Your task to perform on an android device: View the shopping cart on bestbuy.com. Add "usb-b" to the cart on bestbuy.com Image 0: 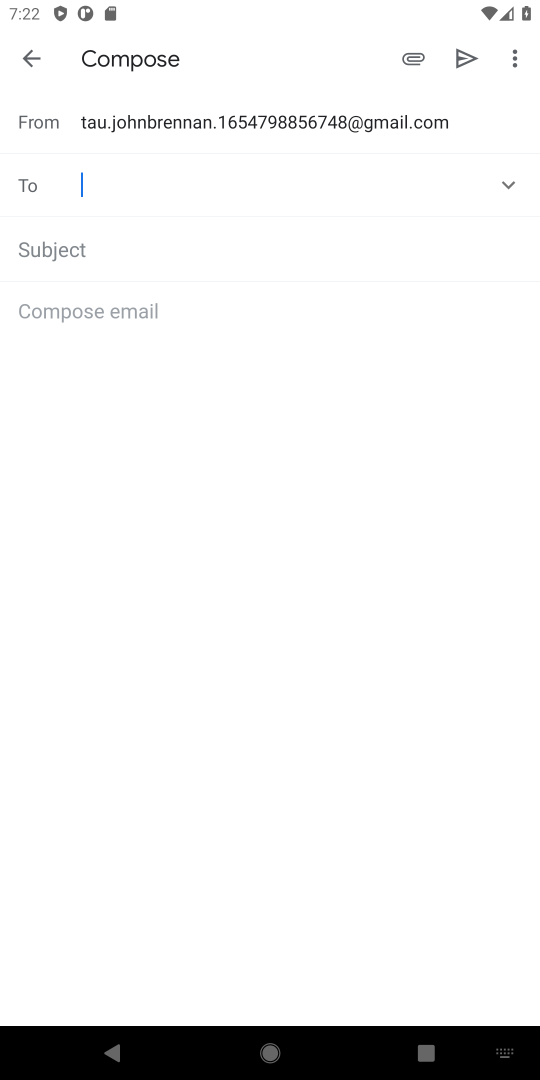
Step 0: press home button
Your task to perform on an android device: View the shopping cart on bestbuy.com. Add "usb-b" to the cart on bestbuy.com Image 1: 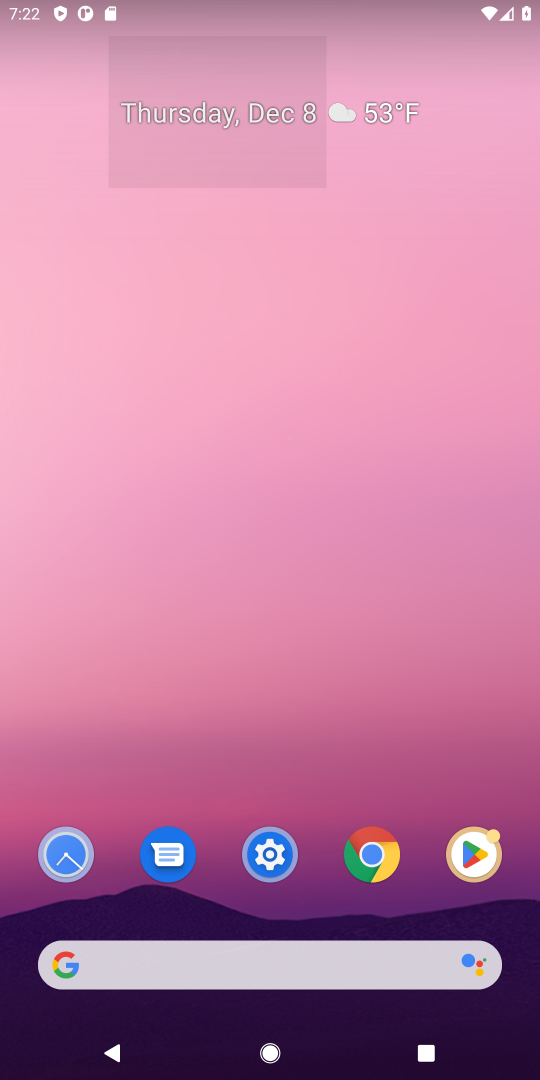
Step 1: click (90, 965)
Your task to perform on an android device: View the shopping cart on bestbuy.com. Add "usb-b" to the cart on bestbuy.com Image 2: 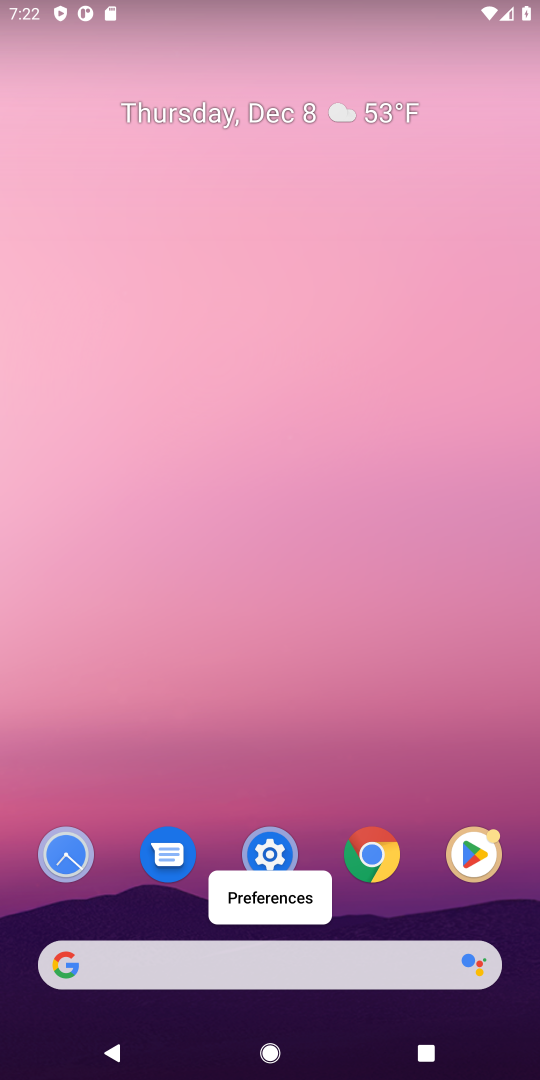
Step 2: click (89, 963)
Your task to perform on an android device: View the shopping cart on bestbuy.com. Add "usb-b" to the cart on bestbuy.com Image 3: 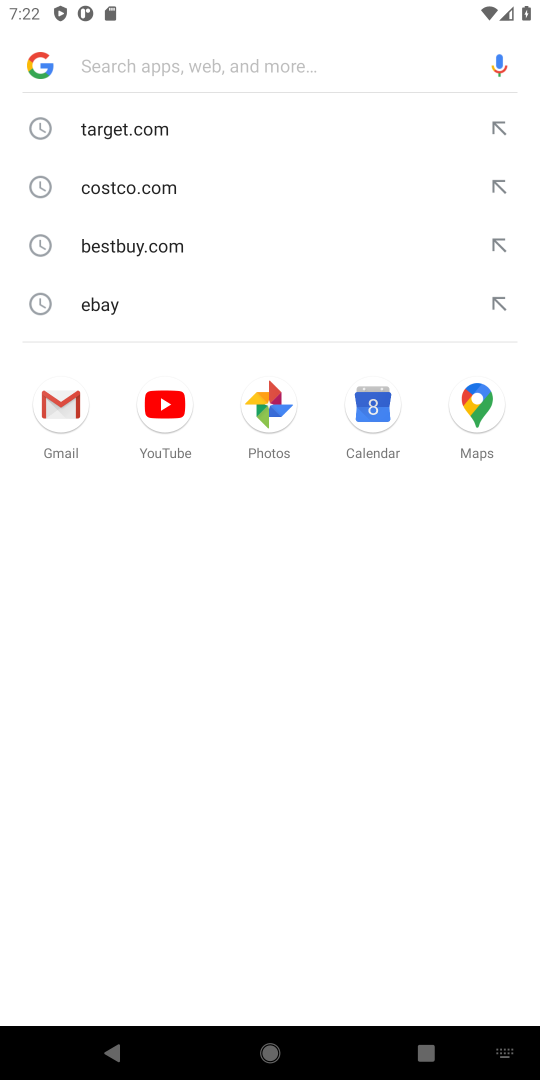
Step 3: type "bestbuy.com"
Your task to perform on an android device: View the shopping cart on bestbuy.com. Add "usb-b" to the cart on bestbuy.com Image 4: 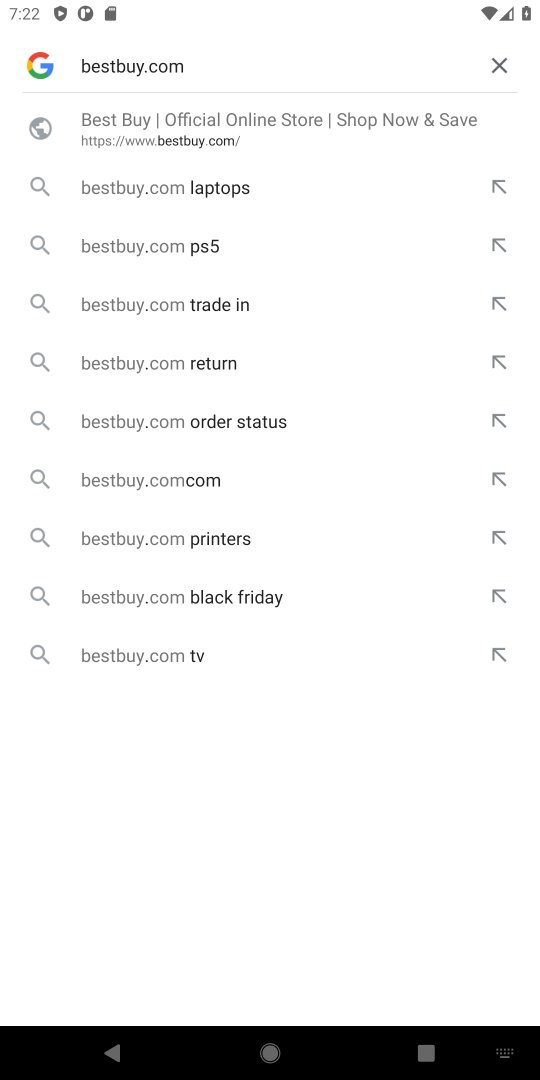
Step 4: press enter
Your task to perform on an android device: View the shopping cart on bestbuy.com. Add "usb-b" to the cart on bestbuy.com Image 5: 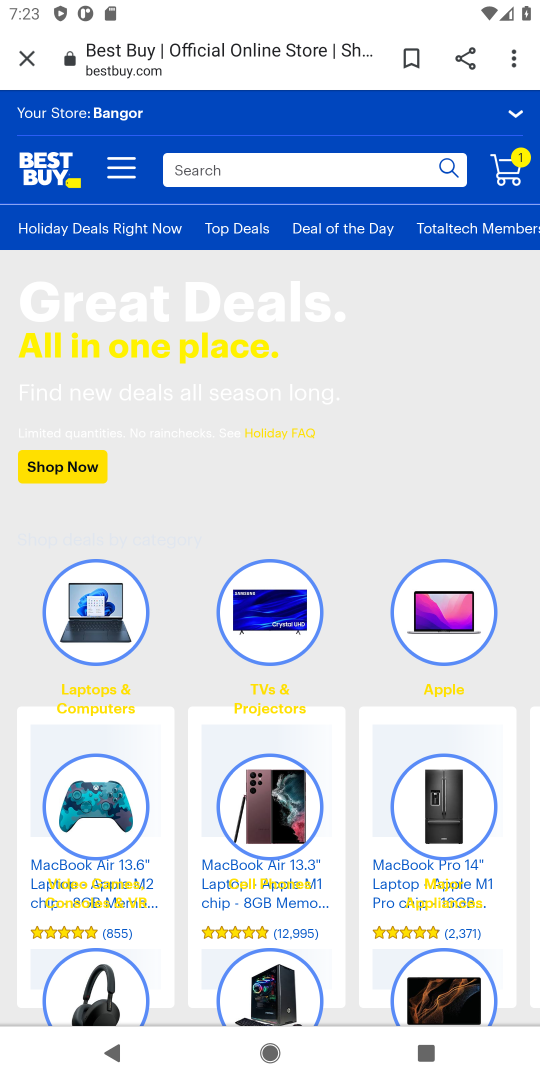
Step 5: click (514, 157)
Your task to perform on an android device: View the shopping cart on bestbuy.com. Add "usb-b" to the cart on bestbuy.com Image 6: 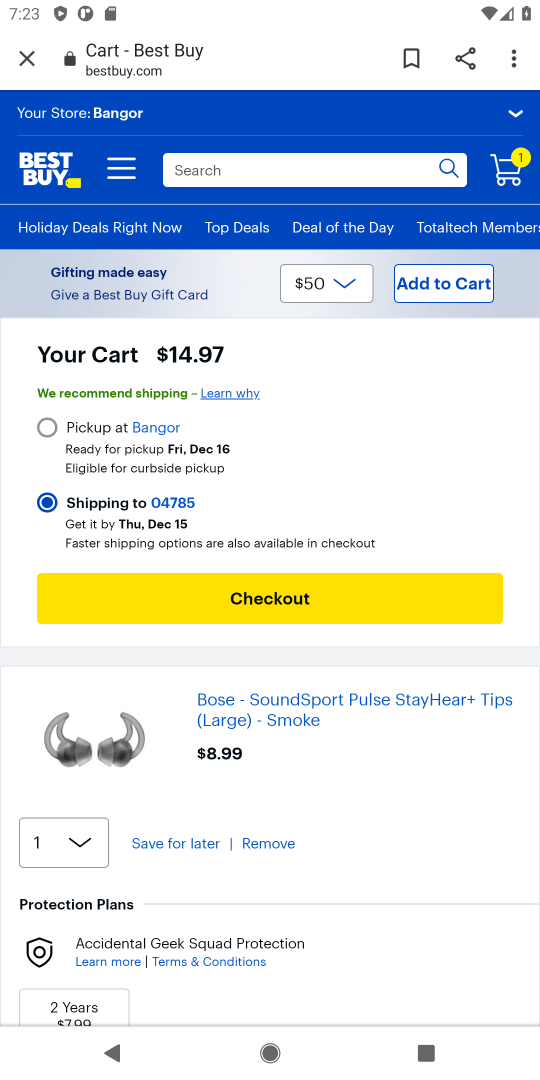
Step 6: click (210, 165)
Your task to perform on an android device: View the shopping cart on bestbuy.com. Add "usb-b" to the cart on bestbuy.com Image 7: 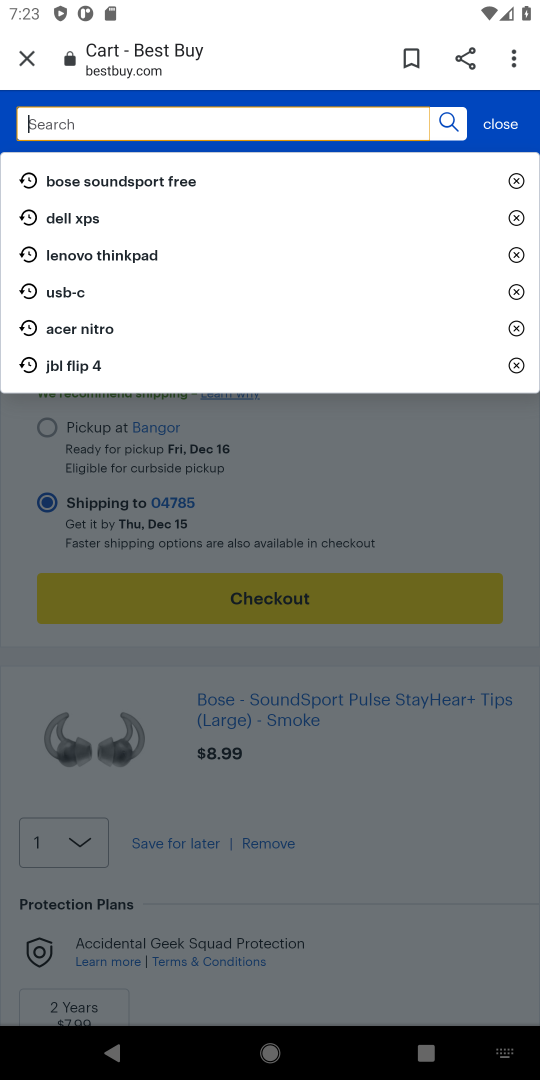
Step 7: type "usb-b"
Your task to perform on an android device: View the shopping cart on bestbuy.com. Add "usb-b" to the cart on bestbuy.com Image 8: 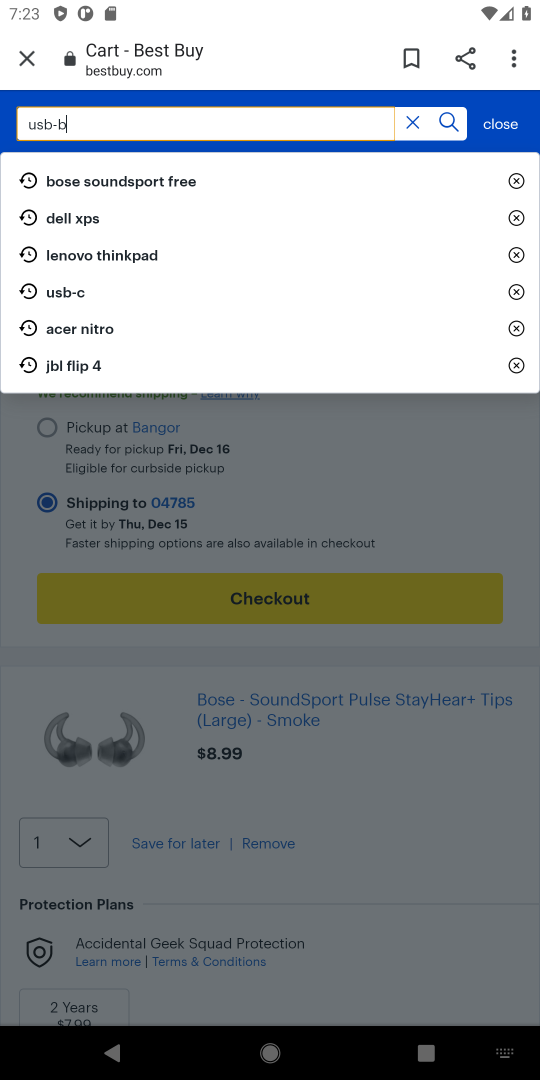
Step 8: press enter
Your task to perform on an android device: View the shopping cart on bestbuy.com. Add "usb-b" to the cart on bestbuy.com Image 9: 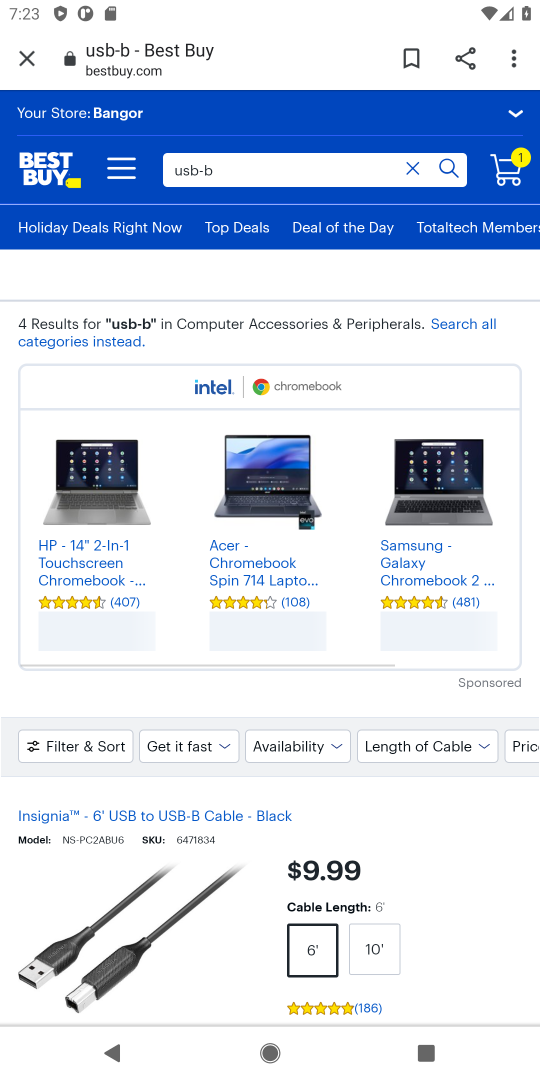
Step 9: drag from (457, 888) to (495, 427)
Your task to perform on an android device: View the shopping cart on bestbuy.com. Add "usb-b" to the cart on bestbuy.com Image 10: 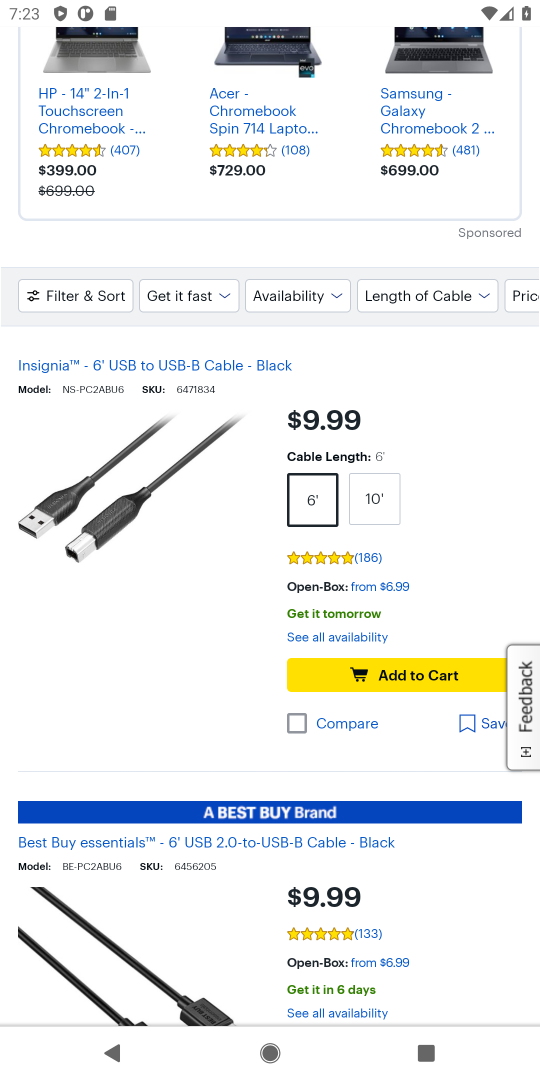
Step 10: click (393, 676)
Your task to perform on an android device: View the shopping cart on bestbuy.com. Add "usb-b" to the cart on bestbuy.com Image 11: 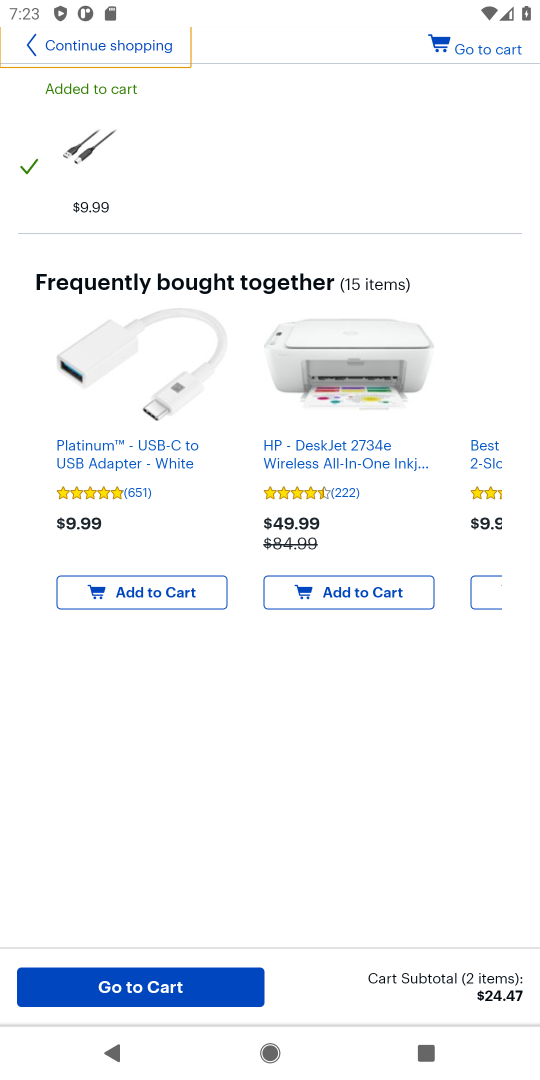
Step 11: task complete